Your task to perform on an android device: Go to internet settings Image 0: 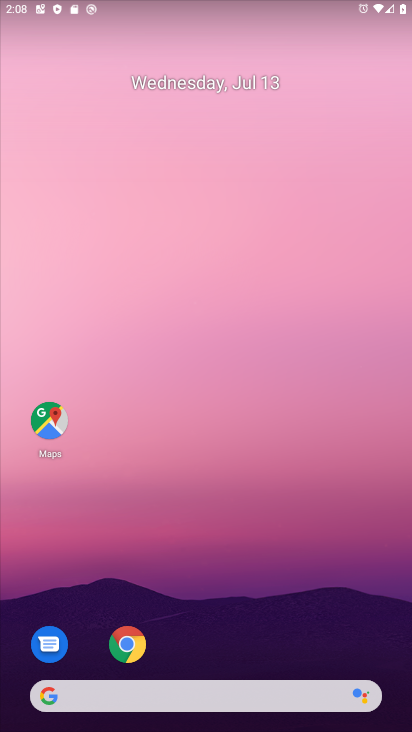
Step 0: drag from (216, 660) to (203, 155)
Your task to perform on an android device: Go to internet settings Image 1: 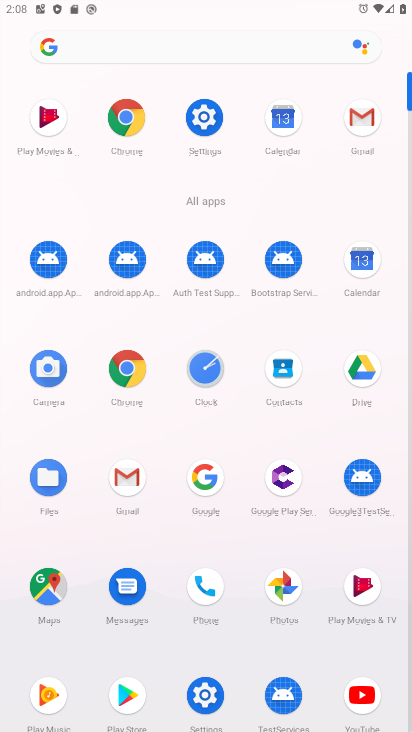
Step 1: click (206, 132)
Your task to perform on an android device: Go to internet settings Image 2: 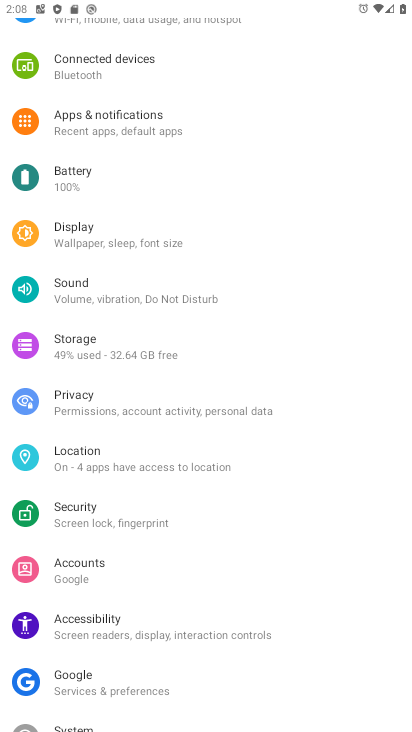
Step 2: drag from (193, 128) to (188, 483)
Your task to perform on an android device: Go to internet settings Image 3: 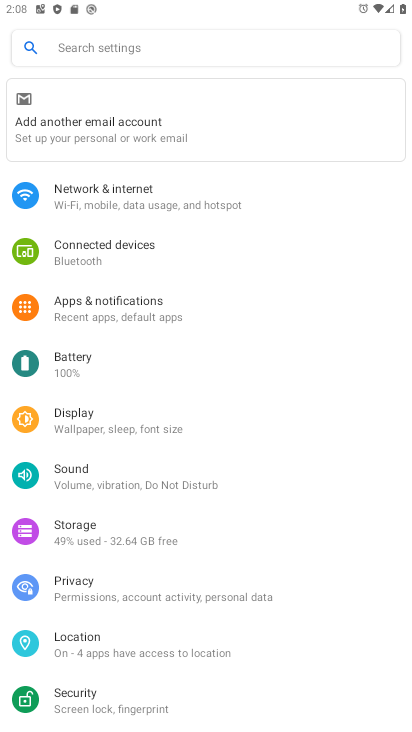
Step 3: click (100, 220)
Your task to perform on an android device: Go to internet settings Image 4: 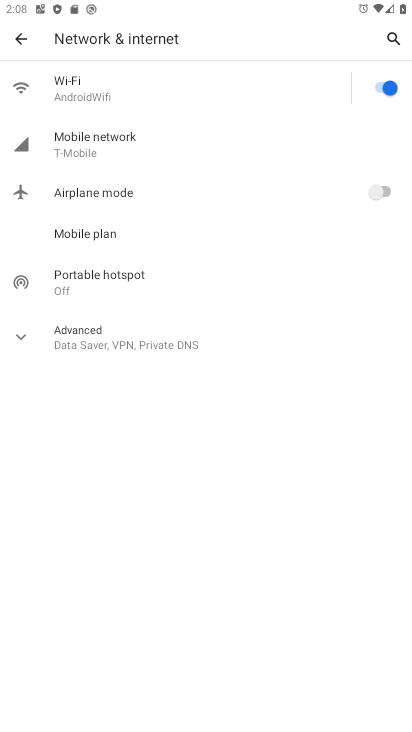
Step 4: click (88, 148)
Your task to perform on an android device: Go to internet settings Image 5: 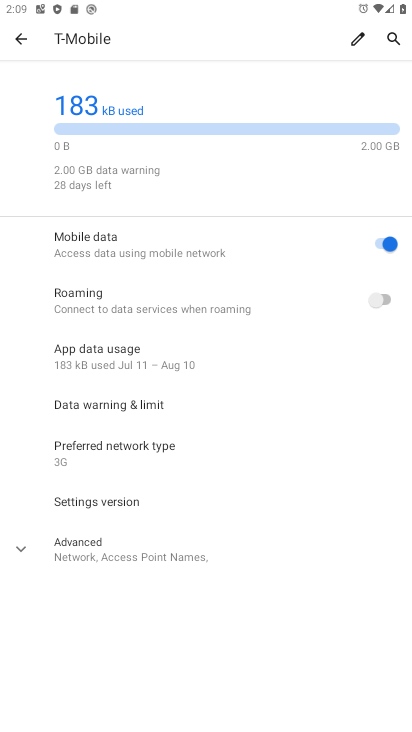
Step 5: task complete